Your task to perform on an android device: delete browsing data in the chrome app Image 0: 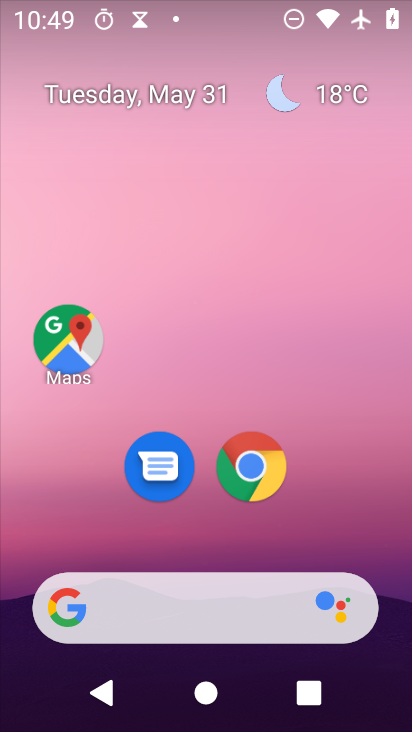
Step 0: drag from (374, 562) to (257, 39)
Your task to perform on an android device: delete browsing data in the chrome app Image 1: 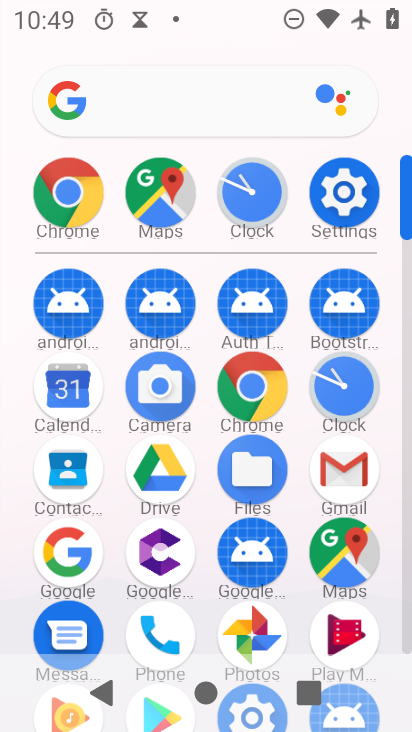
Step 1: drag from (19, 547) to (11, 261)
Your task to perform on an android device: delete browsing data in the chrome app Image 2: 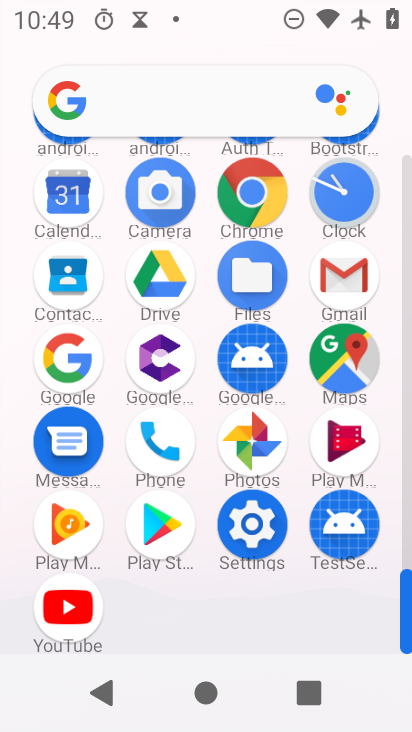
Step 2: click (256, 187)
Your task to perform on an android device: delete browsing data in the chrome app Image 3: 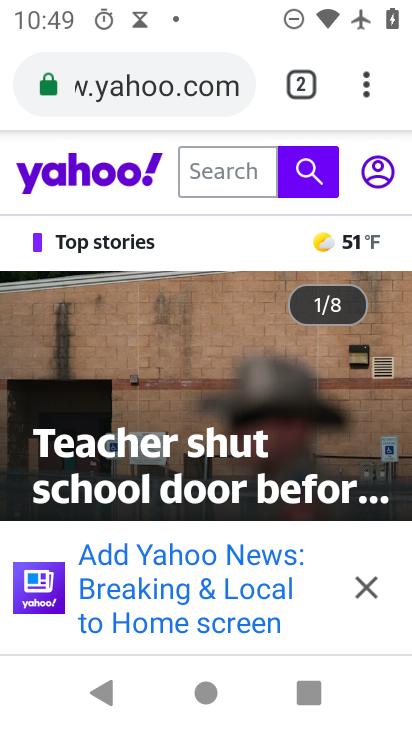
Step 3: task complete